Your task to perform on an android device: toggle airplane mode Image 0: 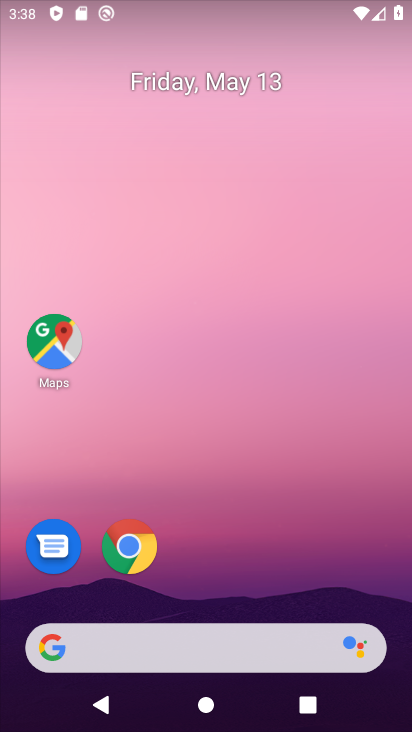
Step 0: drag from (217, 725) to (218, 206)
Your task to perform on an android device: toggle airplane mode Image 1: 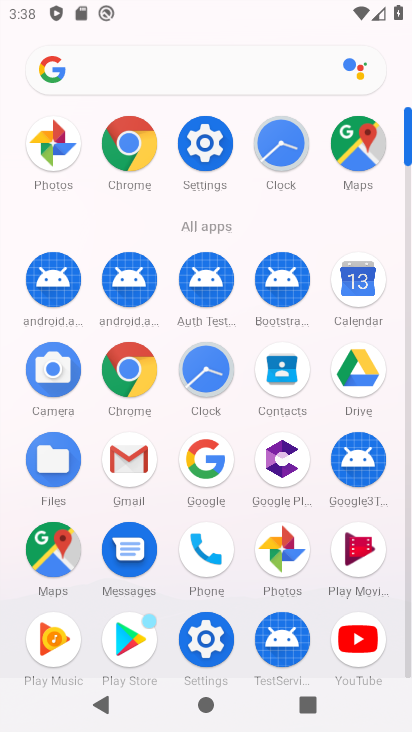
Step 1: click (205, 142)
Your task to perform on an android device: toggle airplane mode Image 2: 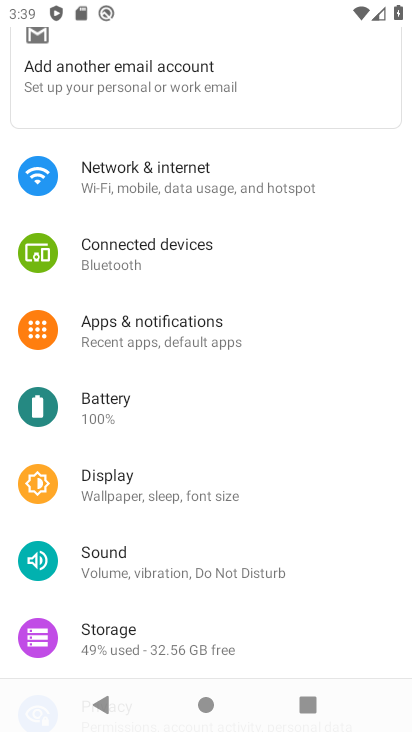
Step 2: click (141, 186)
Your task to perform on an android device: toggle airplane mode Image 3: 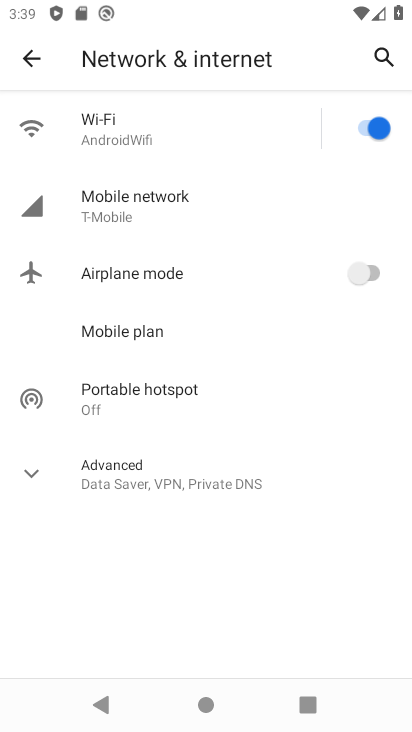
Step 3: click (367, 272)
Your task to perform on an android device: toggle airplane mode Image 4: 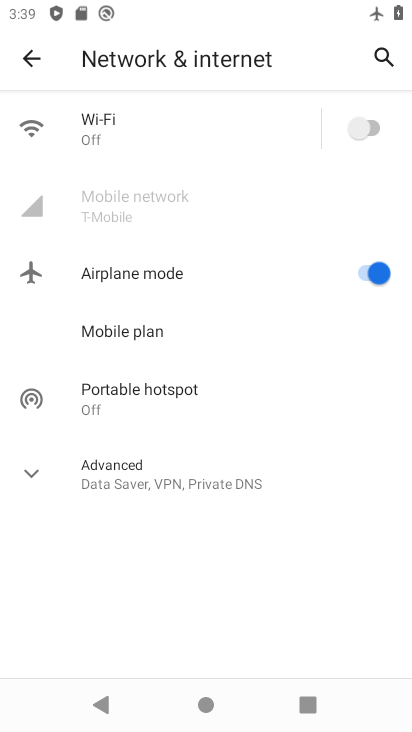
Step 4: task complete